Your task to perform on an android device: change timer sound Image 0: 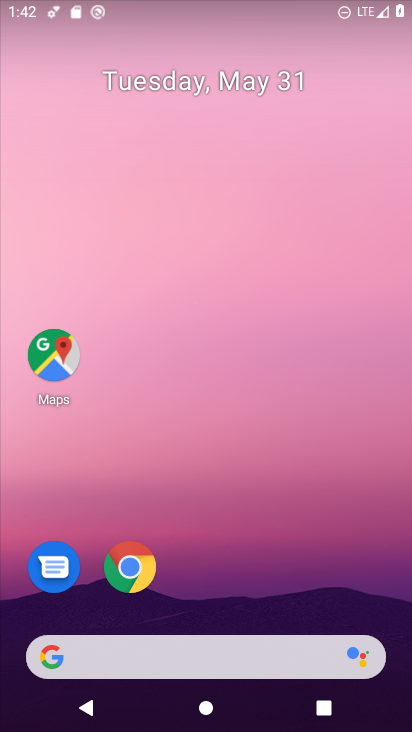
Step 0: drag from (195, 607) to (261, 106)
Your task to perform on an android device: change timer sound Image 1: 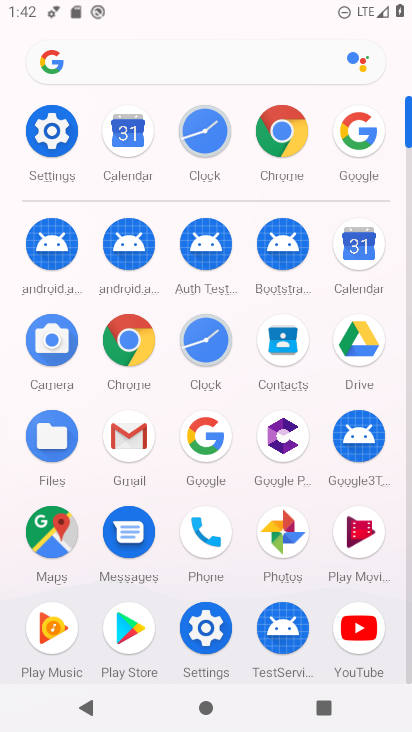
Step 1: click (190, 130)
Your task to perform on an android device: change timer sound Image 2: 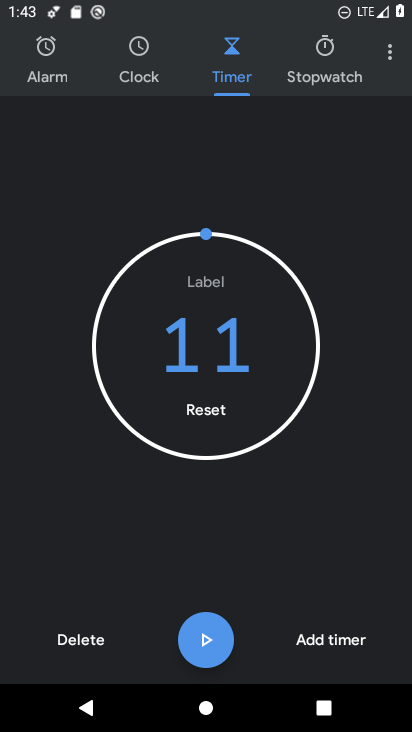
Step 2: click (376, 43)
Your task to perform on an android device: change timer sound Image 3: 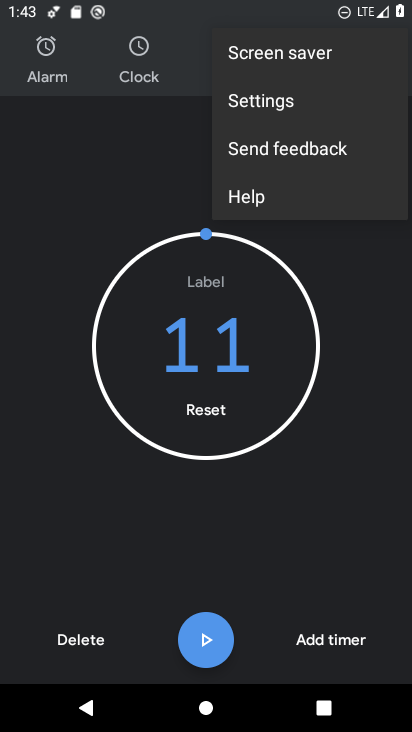
Step 3: click (357, 98)
Your task to perform on an android device: change timer sound Image 4: 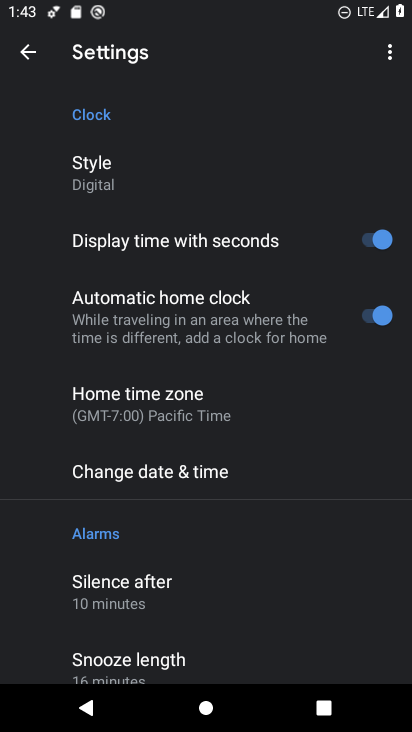
Step 4: drag from (263, 548) to (264, 288)
Your task to perform on an android device: change timer sound Image 5: 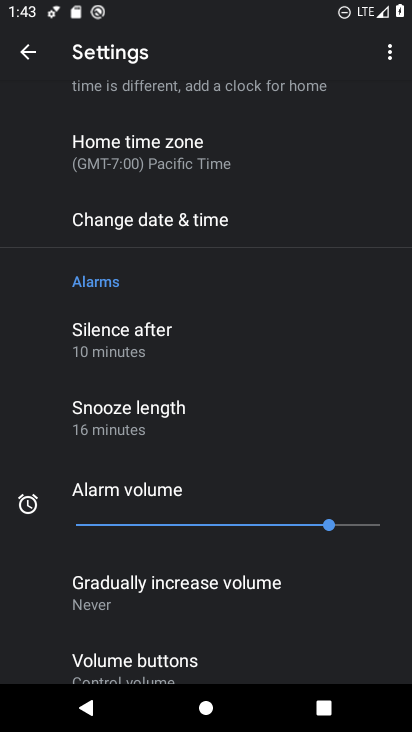
Step 5: drag from (236, 489) to (248, 341)
Your task to perform on an android device: change timer sound Image 6: 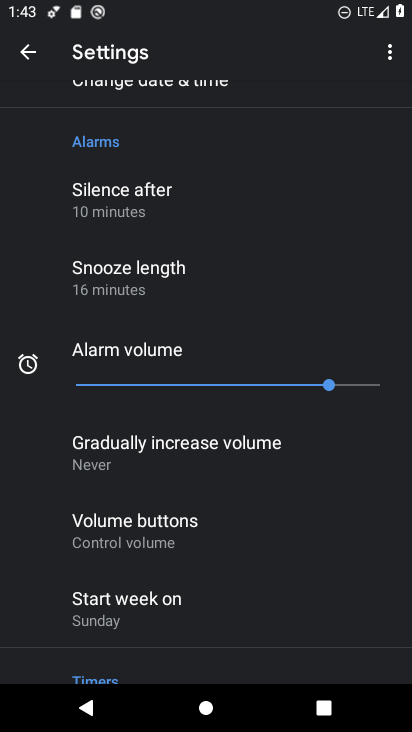
Step 6: drag from (225, 641) to (229, 375)
Your task to perform on an android device: change timer sound Image 7: 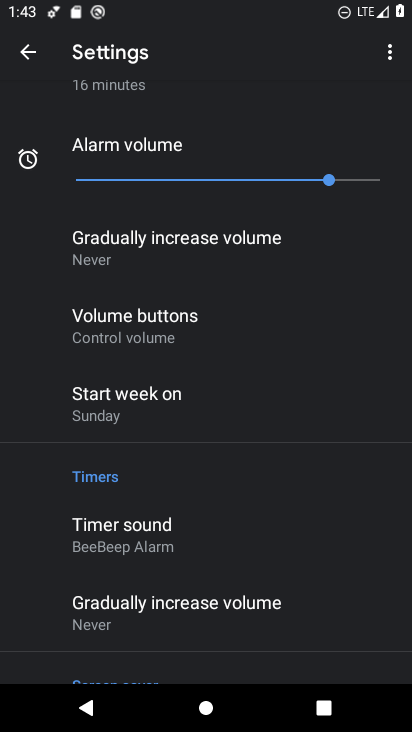
Step 7: drag from (226, 617) to (227, 284)
Your task to perform on an android device: change timer sound Image 8: 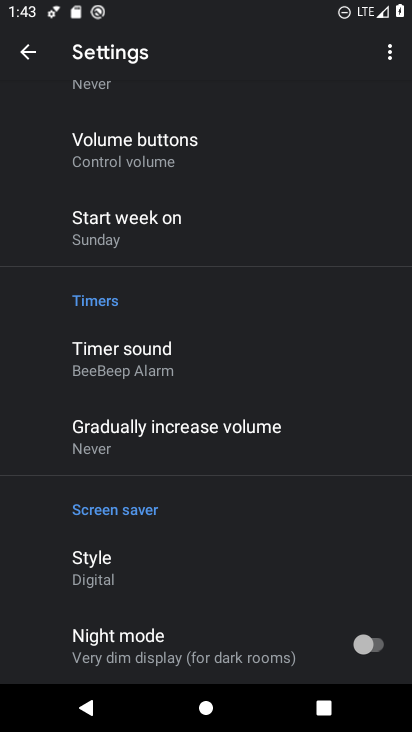
Step 8: drag from (182, 573) to (227, 302)
Your task to perform on an android device: change timer sound Image 9: 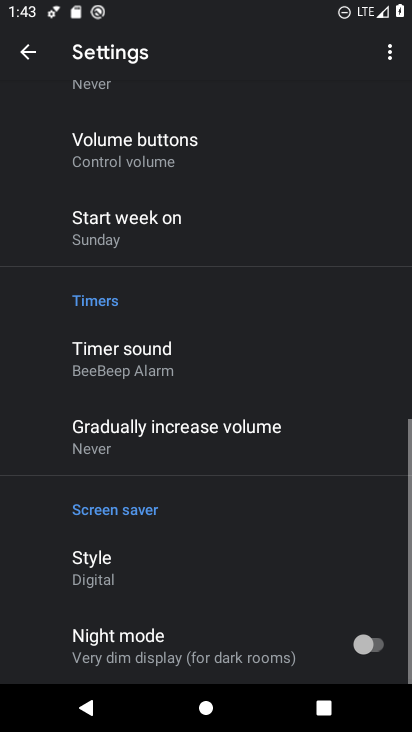
Step 9: click (197, 349)
Your task to perform on an android device: change timer sound Image 10: 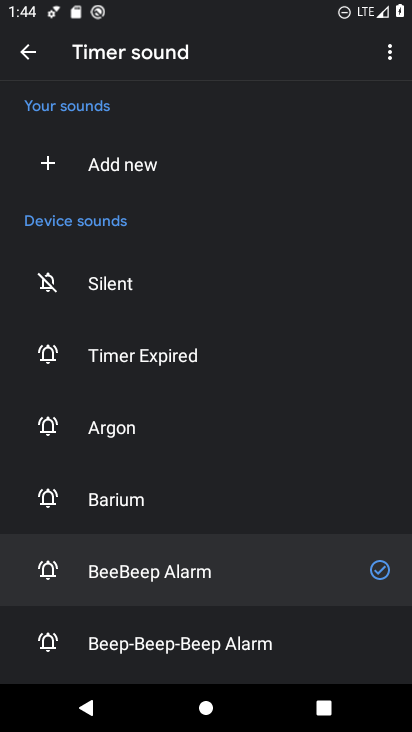
Step 10: click (162, 363)
Your task to perform on an android device: change timer sound Image 11: 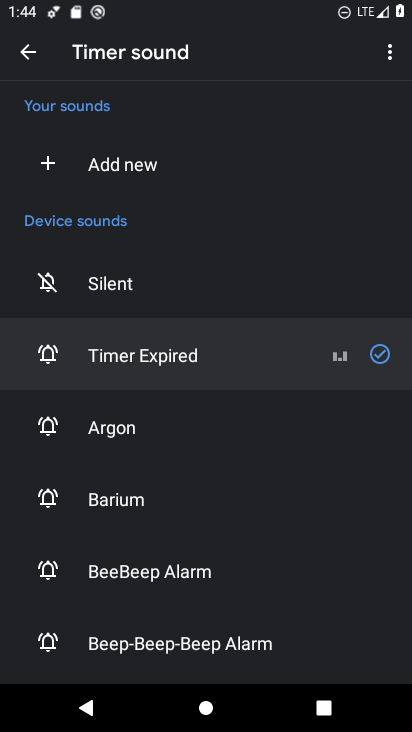
Step 11: task complete